Your task to perform on an android device: toggle javascript in the chrome app Image 0: 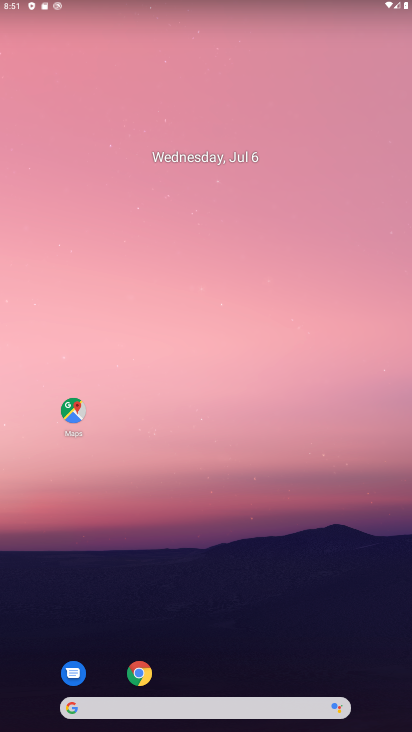
Step 0: drag from (199, 711) to (256, 42)
Your task to perform on an android device: toggle javascript in the chrome app Image 1: 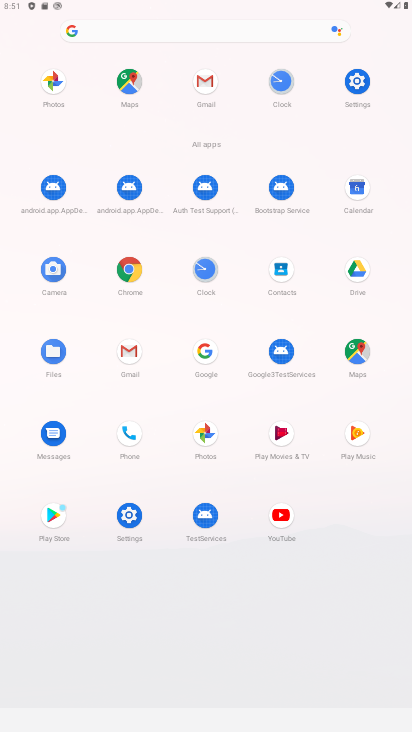
Step 1: click (142, 262)
Your task to perform on an android device: toggle javascript in the chrome app Image 2: 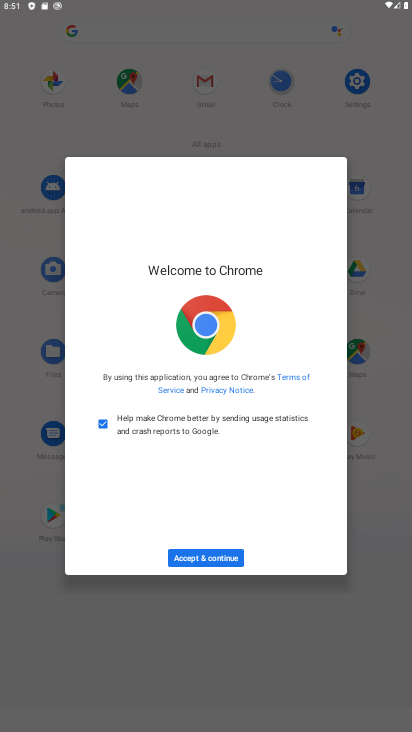
Step 2: click (207, 565)
Your task to perform on an android device: toggle javascript in the chrome app Image 3: 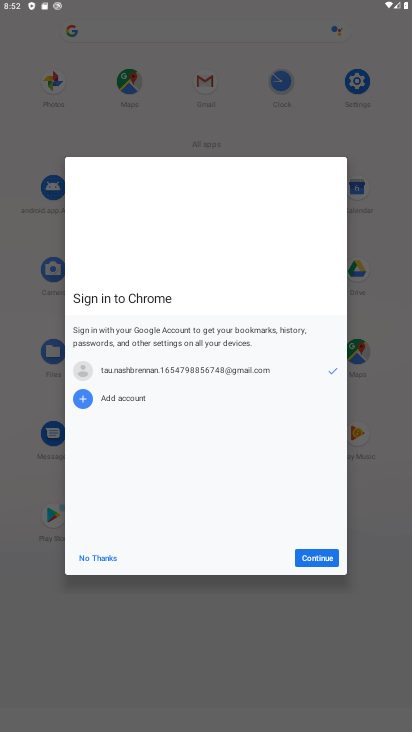
Step 3: click (315, 567)
Your task to perform on an android device: toggle javascript in the chrome app Image 4: 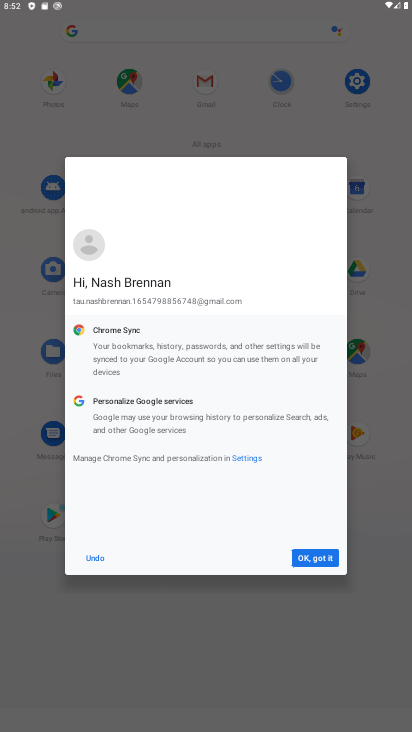
Step 4: click (324, 559)
Your task to perform on an android device: toggle javascript in the chrome app Image 5: 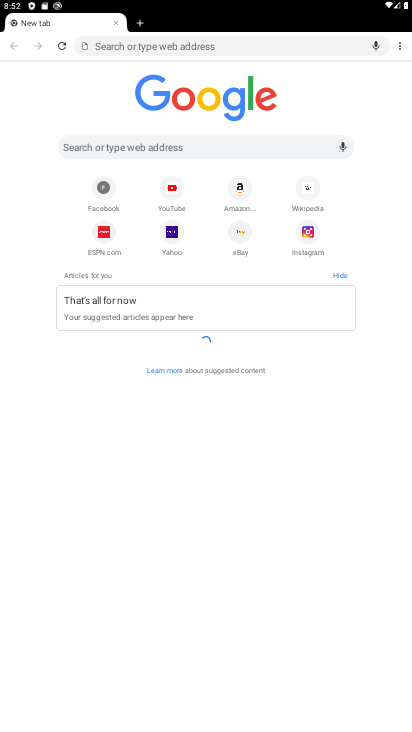
Step 5: drag from (401, 52) to (314, 219)
Your task to perform on an android device: toggle javascript in the chrome app Image 6: 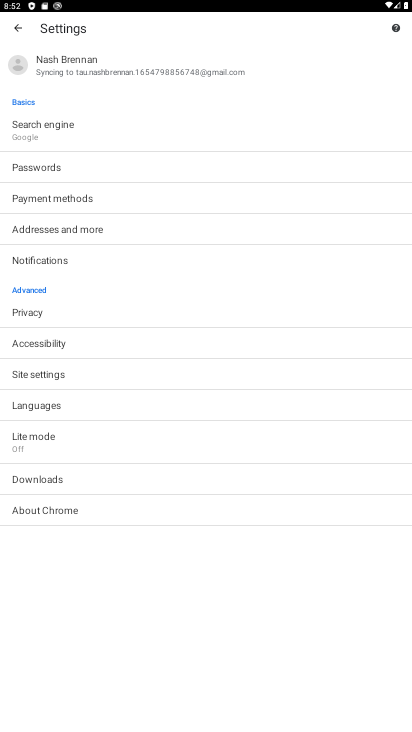
Step 6: click (94, 379)
Your task to perform on an android device: toggle javascript in the chrome app Image 7: 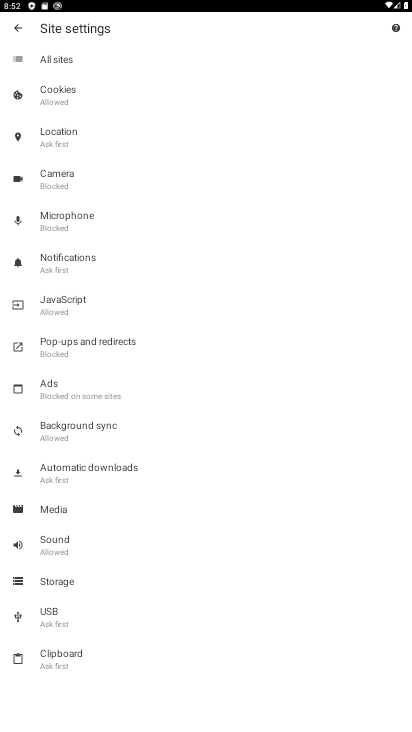
Step 7: click (96, 296)
Your task to perform on an android device: toggle javascript in the chrome app Image 8: 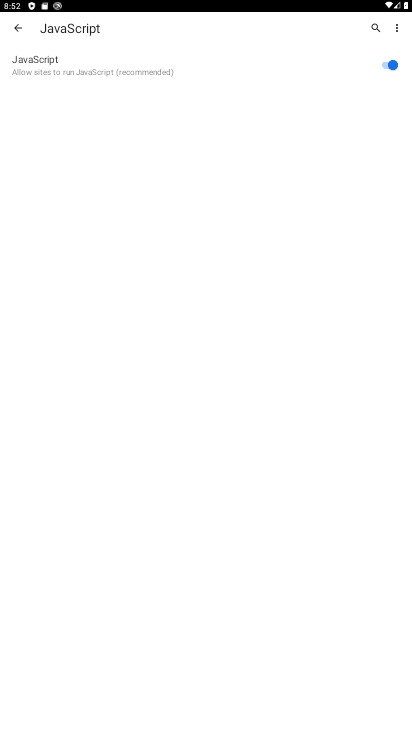
Step 8: click (379, 61)
Your task to perform on an android device: toggle javascript in the chrome app Image 9: 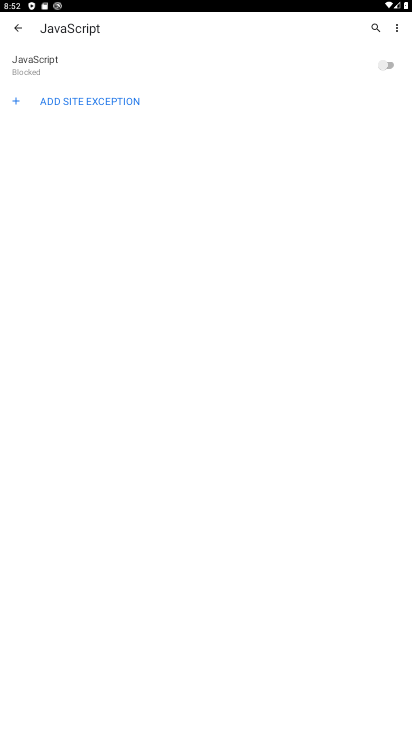
Step 9: task complete